Your task to perform on an android device: Go to calendar. Show me events next week Image 0: 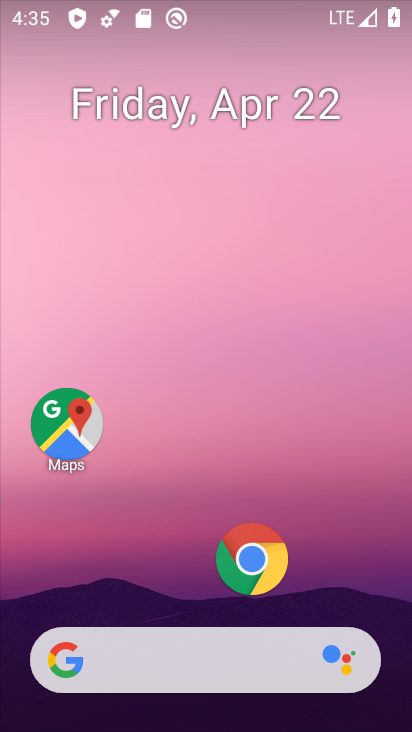
Step 0: drag from (141, 612) to (168, 230)
Your task to perform on an android device: Go to calendar. Show me events next week Image 1: 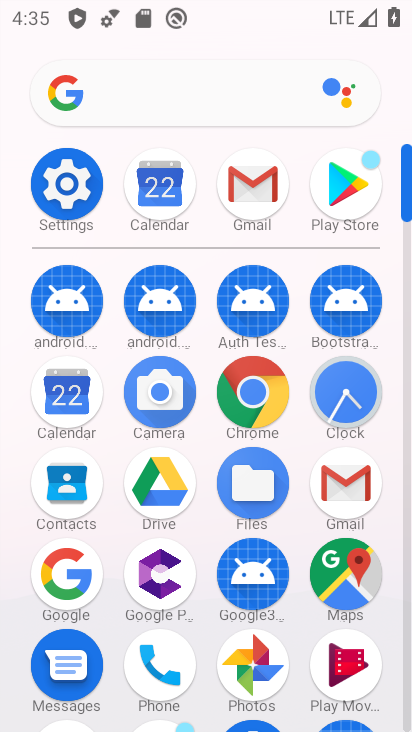
Step 1: click (173, 207)
Your task to perform on an android device: Go to calendar. Show me events next week Image 2: 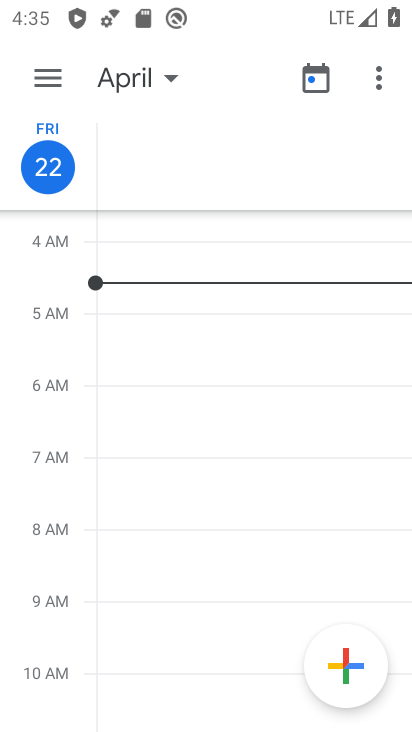
Step 2: click (45, 79)
Your task to perform on an android device: Go to calendar. Show me events next week Image 3: 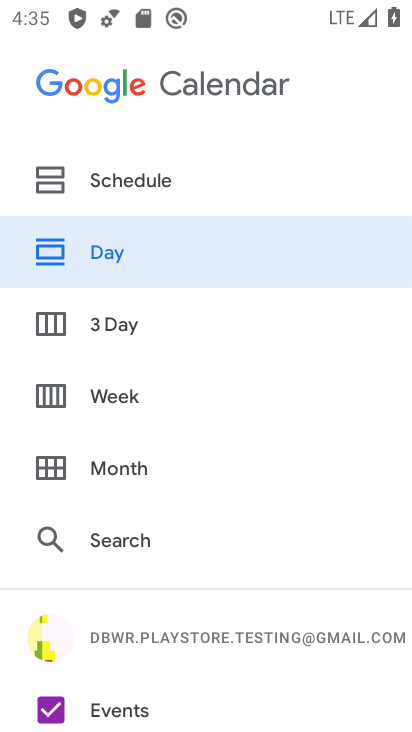
Step 3: drag from (109, 610) to (201, 341)
Your task to perform on an android device: Go to calendar. Show me events next week Image 4: 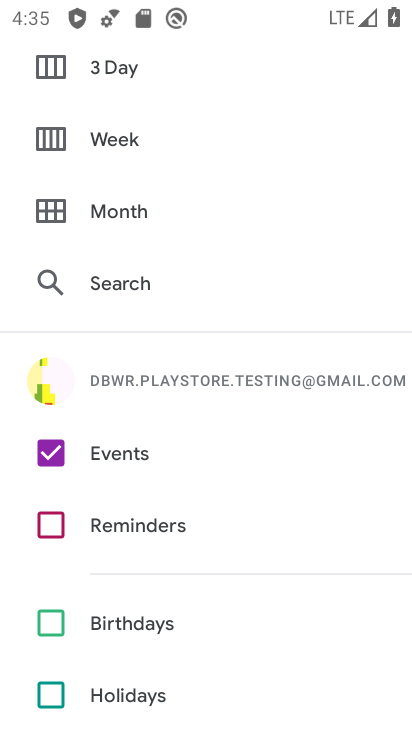
Step 4: click (130, 136)
Your task to perform on an android device: Go to calendar. Show me events next week Image 5: 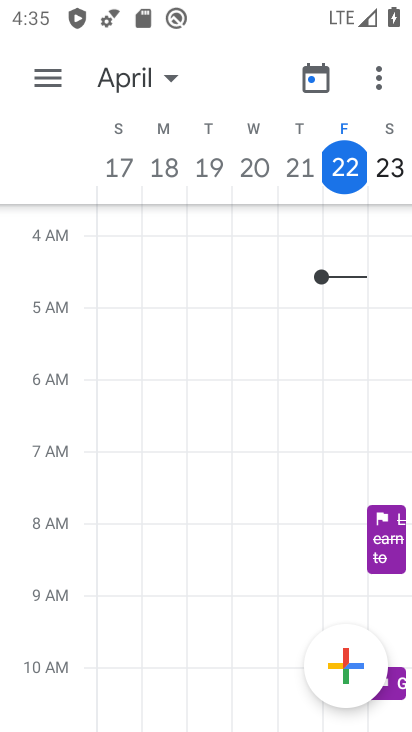
Step 5: task complete